Your task to perform on an android device: Open calendar and show me the second week of next month Image 0: 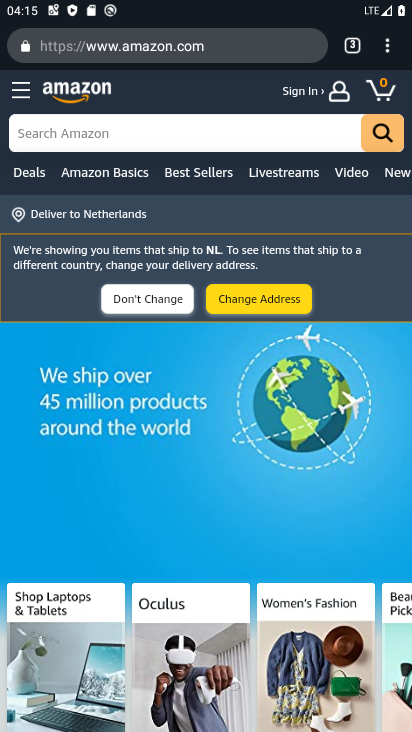
Step 0: press home button
Your task to perform on an android device: Open calendar and show me the second week of next month Image 1: 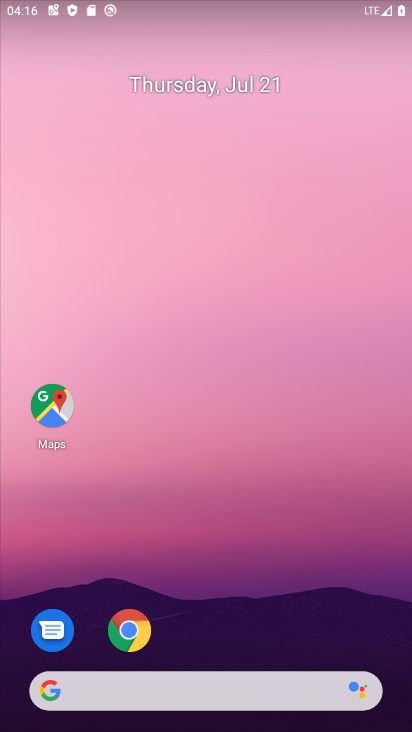
Step 1: click (179, 85)
Your task to perform on an android device: Open calendar and show me the second week of next month Image 2: 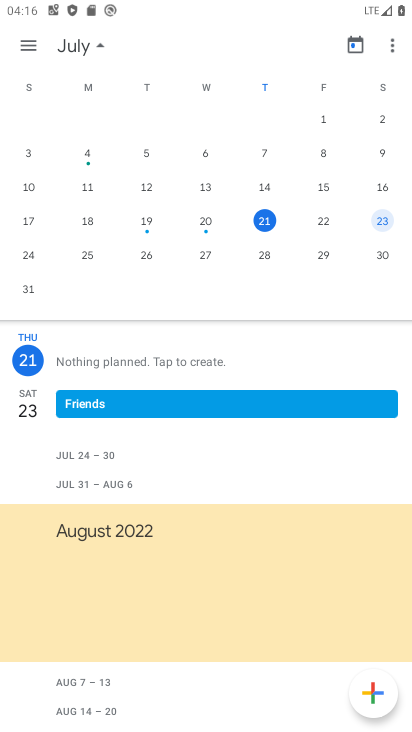
Step 2: drag from (327, 281) to (57, 283)
Your task to perform on an android device: Open calendar and show me the second week of next month Image 3: 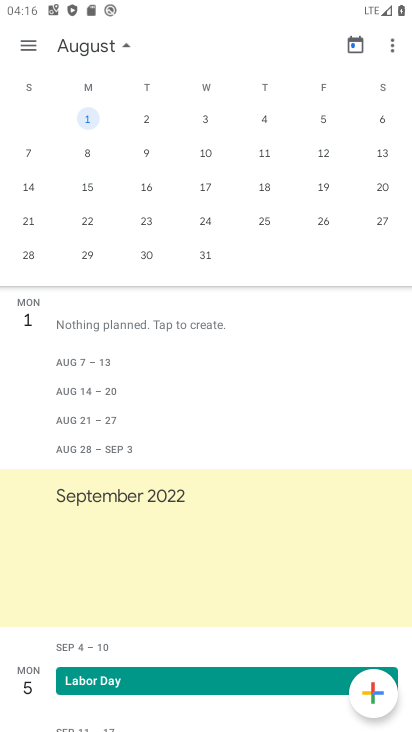
Step 3: click (203, 164)
Your task to perform on an android device: Open calendar and show me the second week of next month Image 4: 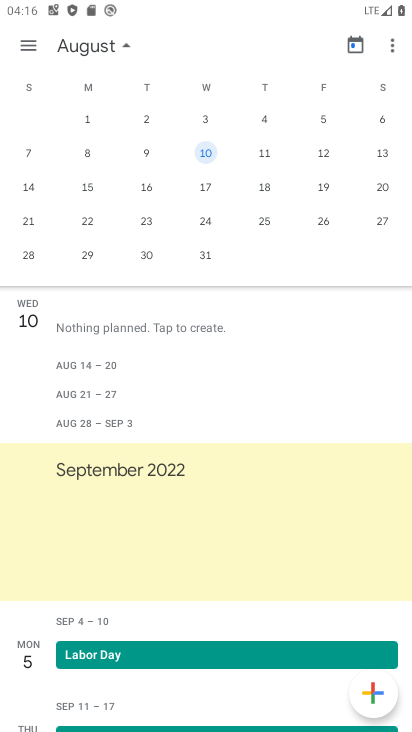
Step 4: task complete